Your task to perform on an android device: Find coffee shops on Maps Image 0: 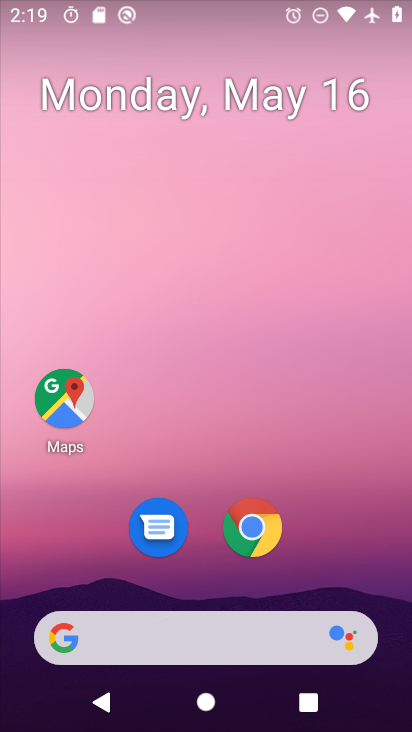
Step 0: click (65, 411)
Your task to perform on an android device: Find coffee shops on Maps Image 1: 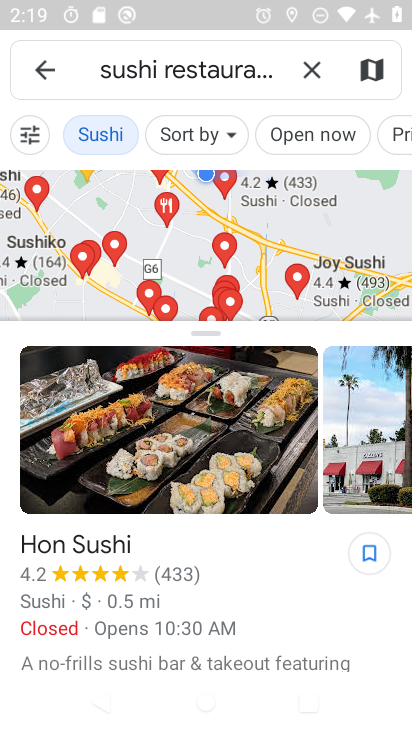
Step 1: click (313, 66)
Your task to perform on an android device: Find coffee shops on Maps Image 2: 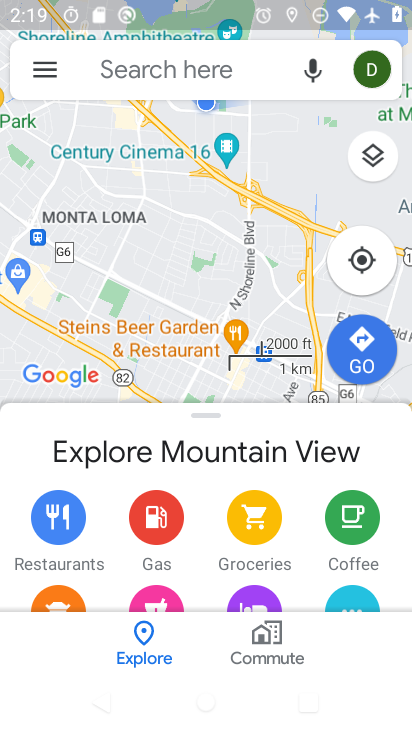
Step 2: click (209, 71)
Your task to perform on an android device: Find coffee shops on Maps Image 3: 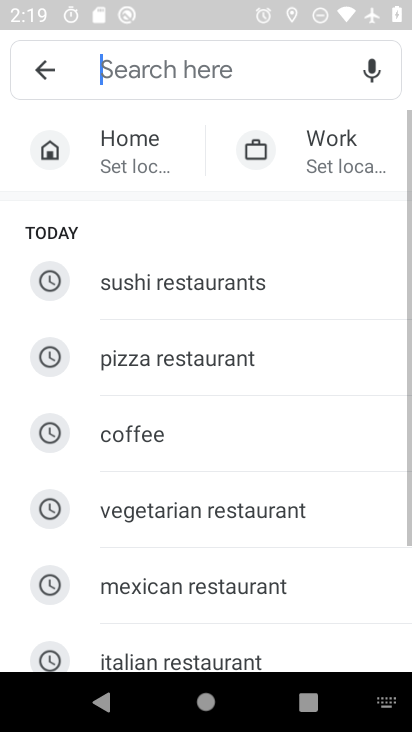
Step 3: click (167, 438)
Your task to perform on an android device: Find coffee shops on Maps Image 4: 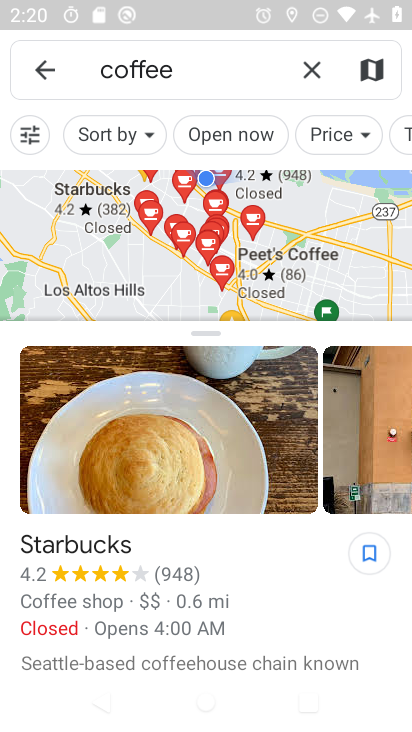
Step 4: task complete